Your task to perform on an android device: find snoozed emails in the gmail app Image 0: 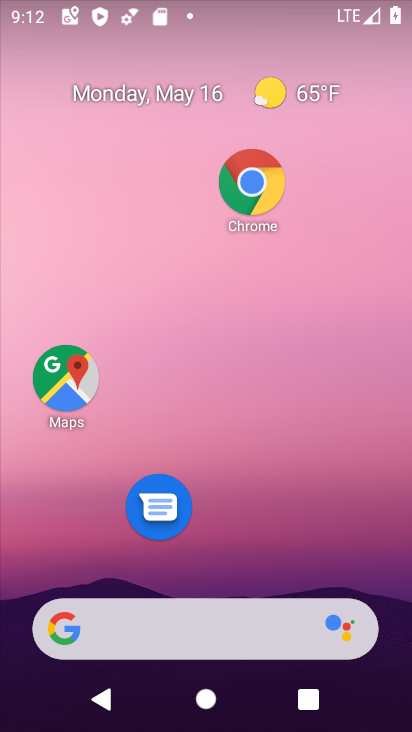
Step 0: drag from (187, 577) to (378, 9)
Your task to perform on an android device: find snoozed emails in the gmail app Image 1: 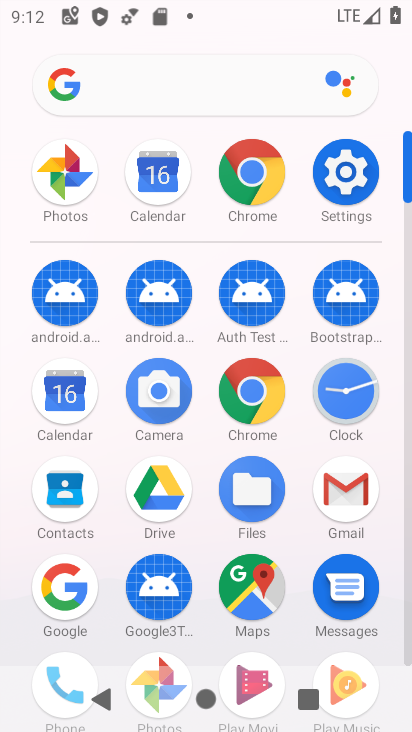
Step 1: click (312, 494)
Your task to perform on an android device: find snoozed emails in the gmail app Image 2: 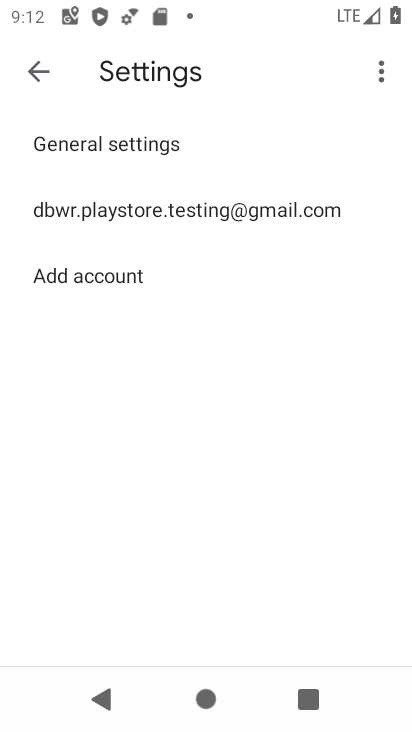
Step 2: click (38, 76)
Your task to perform on an android device: find snoozed emails in the gmail app Image 3: 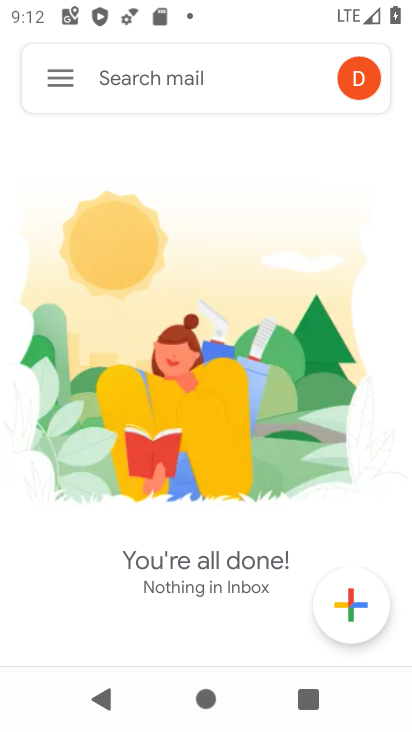
Step 3: click (56, 75)
Your task to perform on an android device: find snoozed emails in the gmail app Image 4: 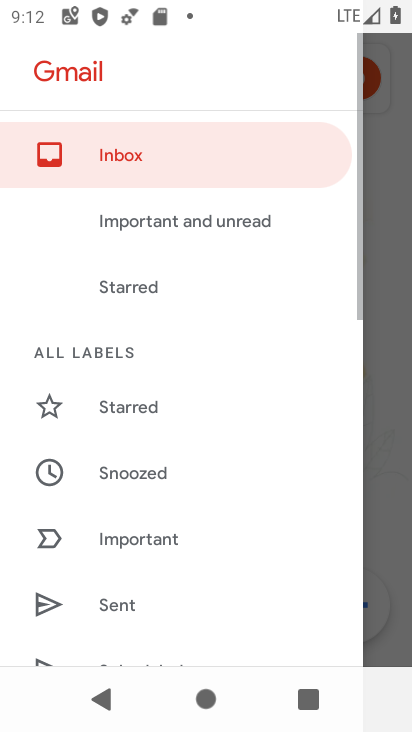
Step 4: click (132, 536)
Your task to perform on an android device: find snoozed emails in the gmail app Image 5: 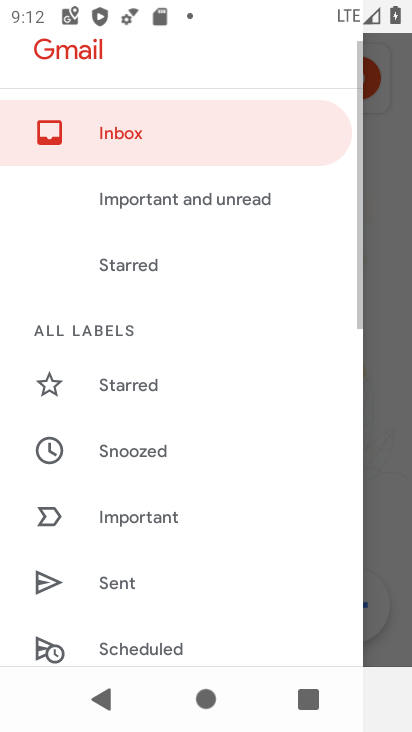
Step 5: click (124, 477)
Your task to perform on an android device: find snoozed emails in the gmail app Image 6: 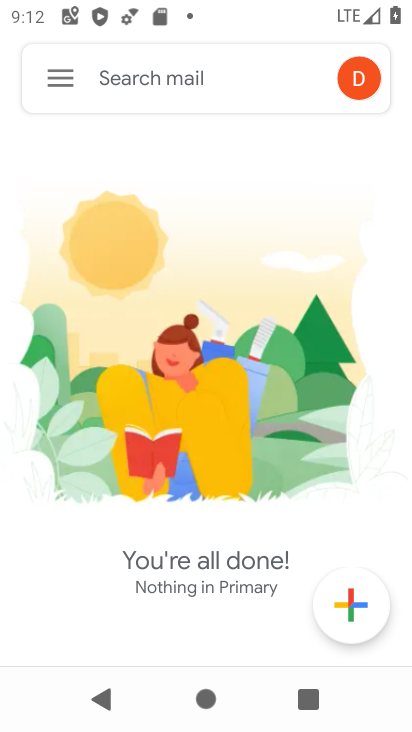
Step 6: task complete